Your task to perform on an android device: Open Maps and search for coffee Image 0: 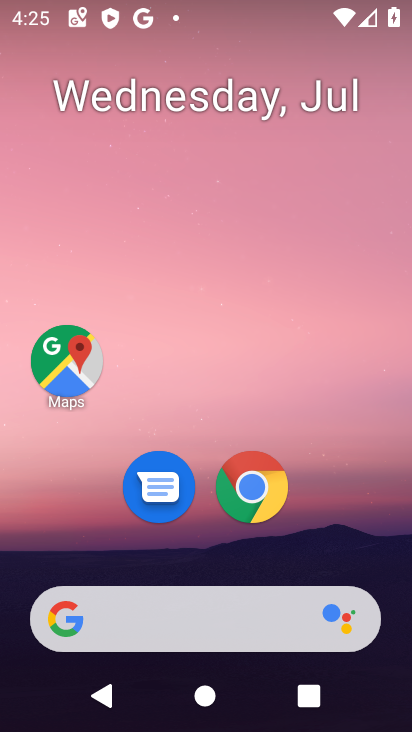
Step 0: click (76, 363)
Your task to perform on an android device: Open Maps and search for coffee Image 1: 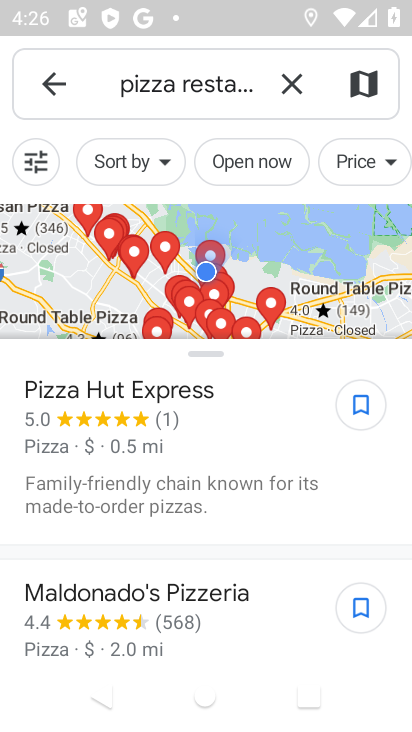
Step 1: click (295, 88)
Your task to perform on an android device: Open Maps and search for coffee Image 2: 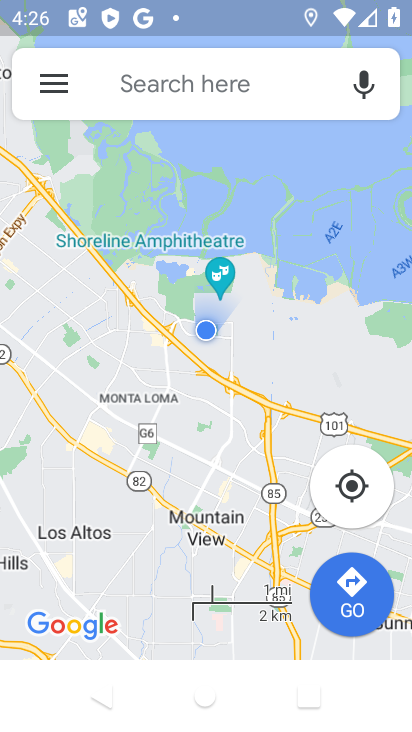
Step 2: click (151, 94)
Your task to perform on an android device: Open Maps and search for coffee Image 3: 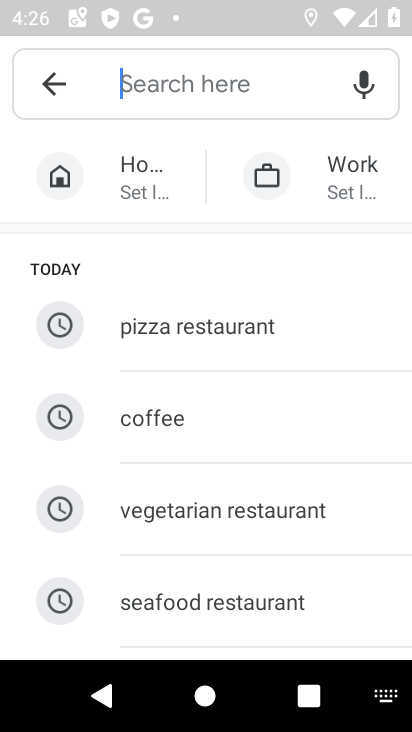
Step 3: click (196, 423)
Your task to perform on an android device: Open Maps and search for coffee Image 4: 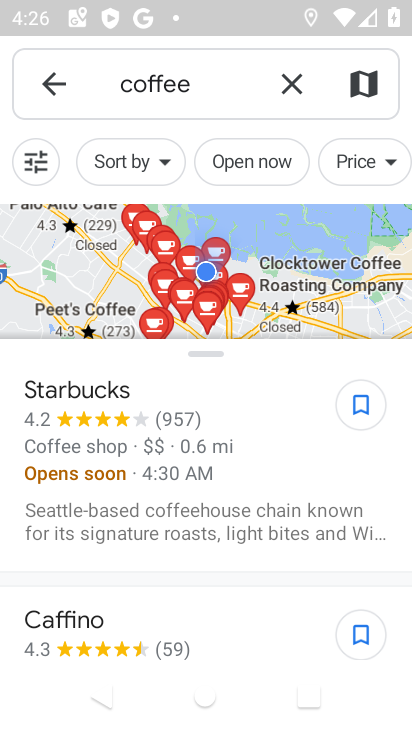
Step 4: task complete